Your task to perform on an android device: open a new tab in the chrome app Image 0: 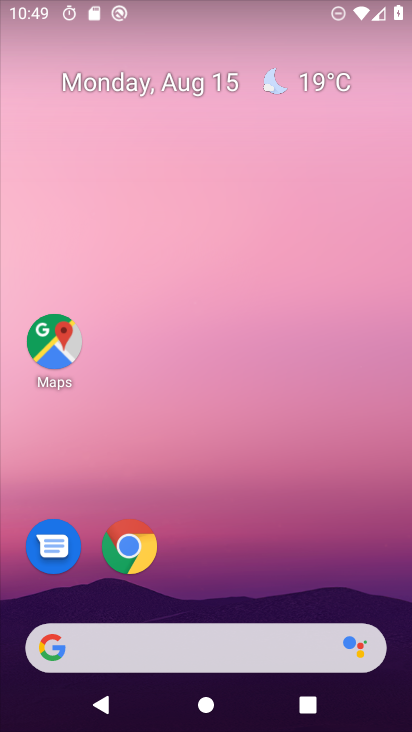
Step 0: click (126, 544)
Your task to perform on an android device: open a new tab in the chrome app Image 1: 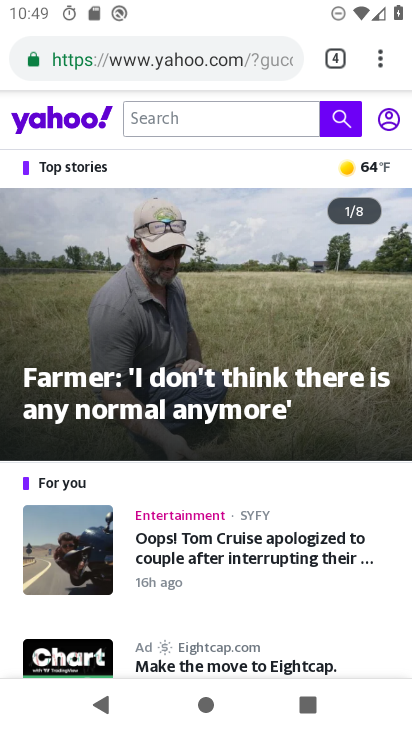
Step 1: click (379, 64)
Your task to perform on an android device: open a new tab in the chrome app Image 2: 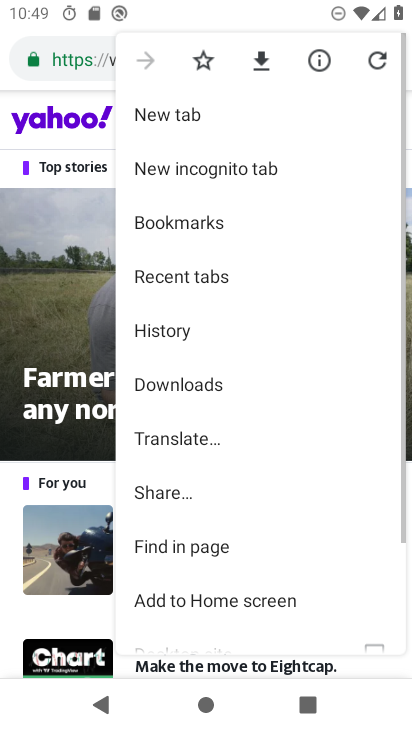
Step 2: click (188, 110)
Your task to perform on an android device: open a new tab in the chrome app Image 3: 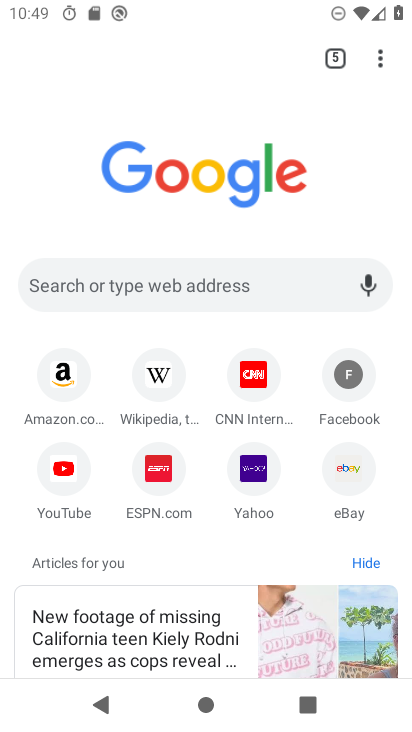
Step 3: task complete